Your task to perform on an android device: empty trash in google photos Image 0: 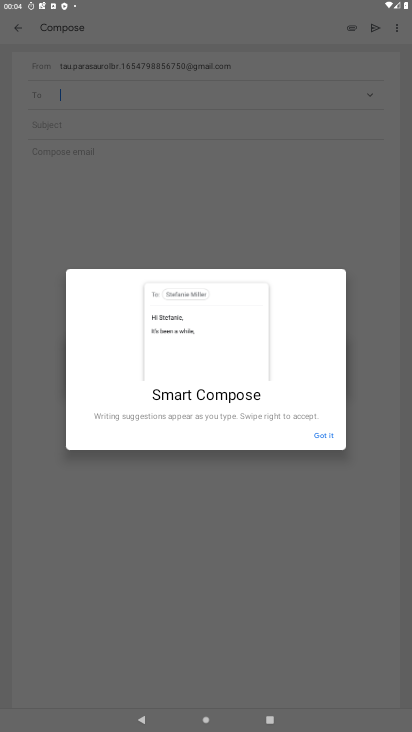
Step 0: press home button
Your task to perform on an android device: empty trash in google photos Image 1: 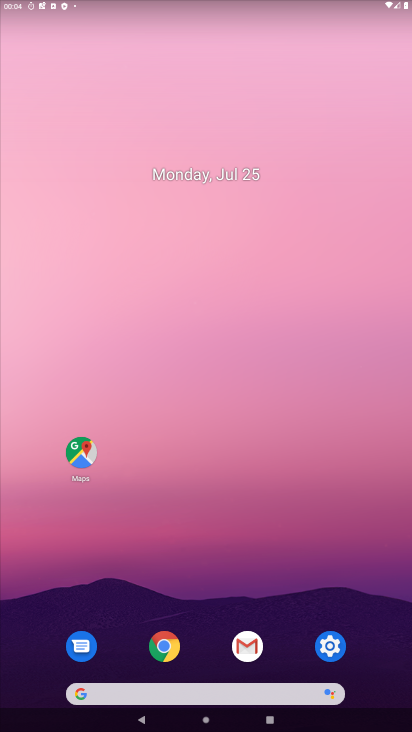
Step 1: drag from (270, 694) to (295, 256)
Your task to perform on an android device: empty trash in google photos Image 2: 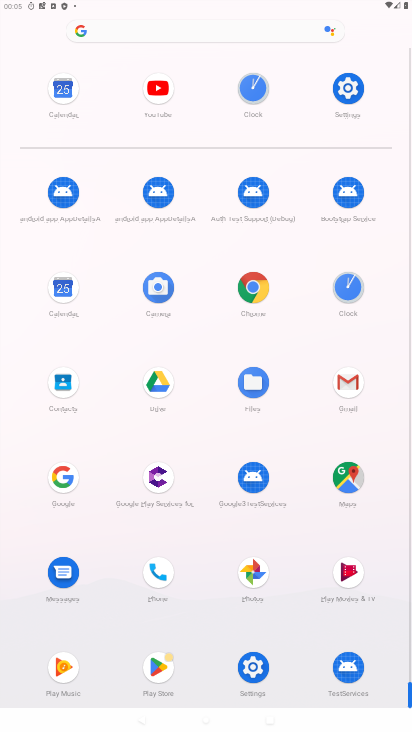
Step 2: click (253, 571)
Your task to perform on an android device: empty trash in google photos Image 3: 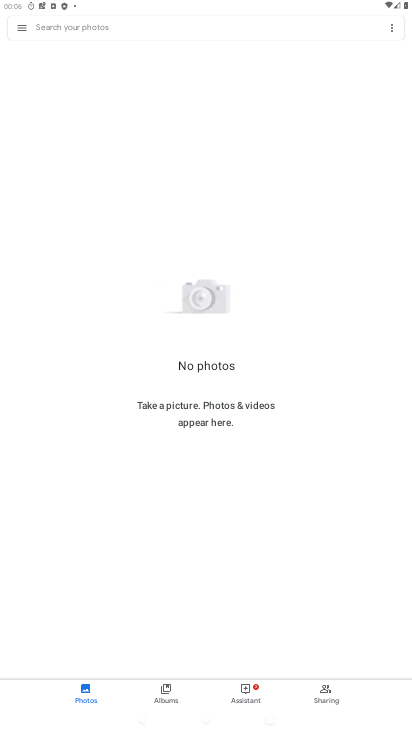
Step 3: click (113, 28)
Your task to perform on an android device: empty trash in google photos Image 4: 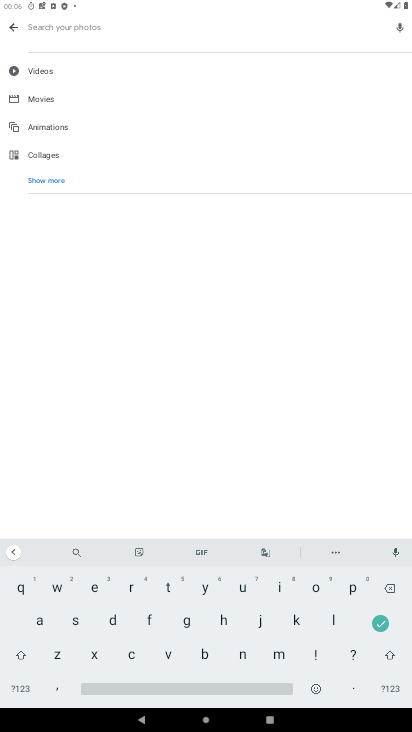
Step 4: click (170, 589)
Your task to perform on an android device: empty trash in google photos Image 5: 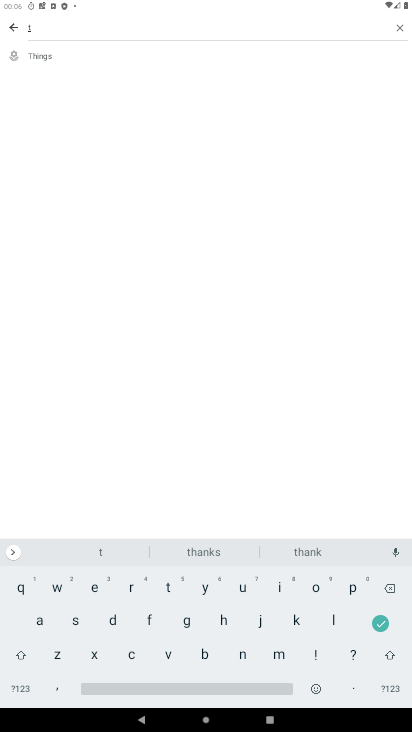
Step 5: click (133, 588)
Your task to perform on an android device: empty trash in google photos Image 6: 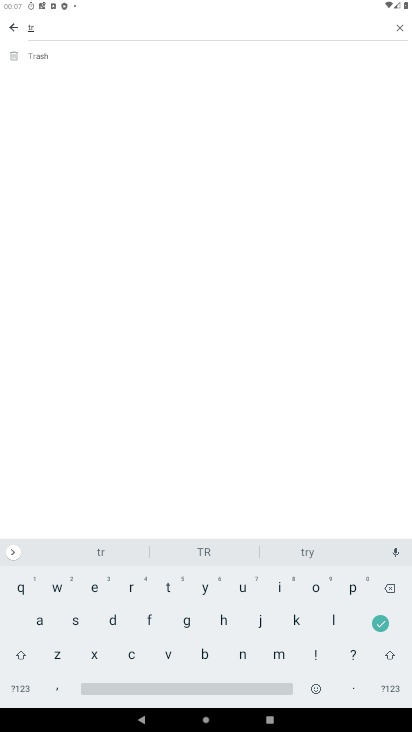
Step 6: click (89, 57)
Your task to perform on an android device: empty trash in google photos Image 7: 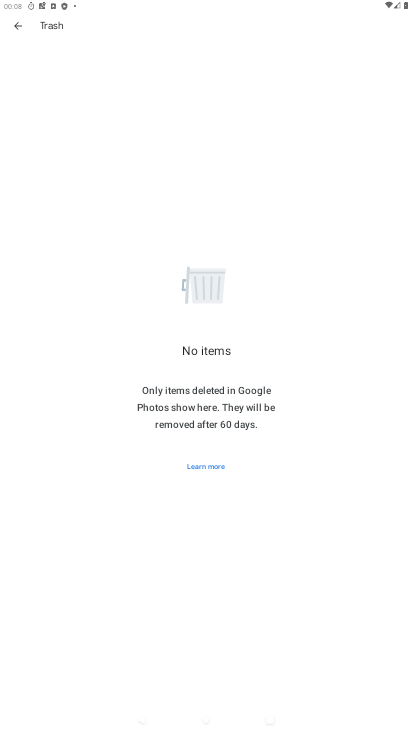
Step 7: task complete